Your task to perform on an android device: toggle priority inbox in the gmail app Image 0: 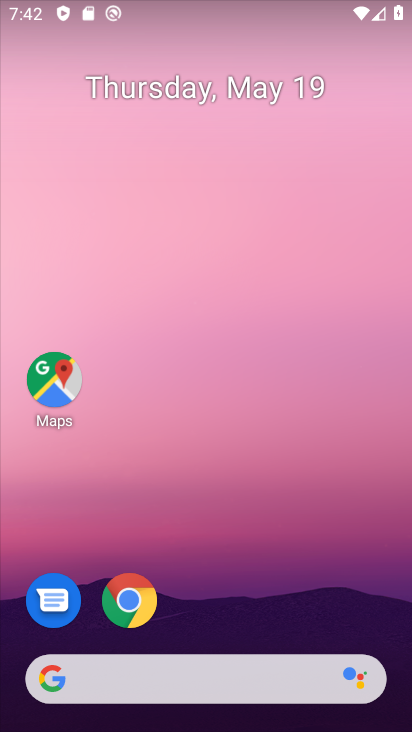
Step 0: drag from (320, 577) to (393, 20)
Your task to perform on an android device: toggle priority inbox in the gmail app Image 1: 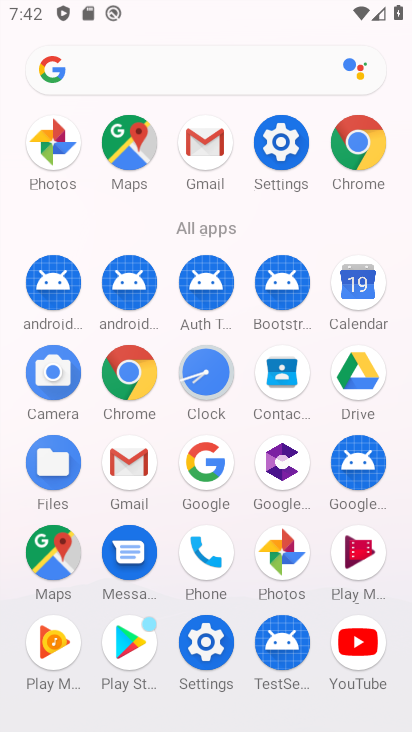
Step 1: click (205, 129)
Your task to perform on an android device: toggle priority inbox in the gmail app Image 2: 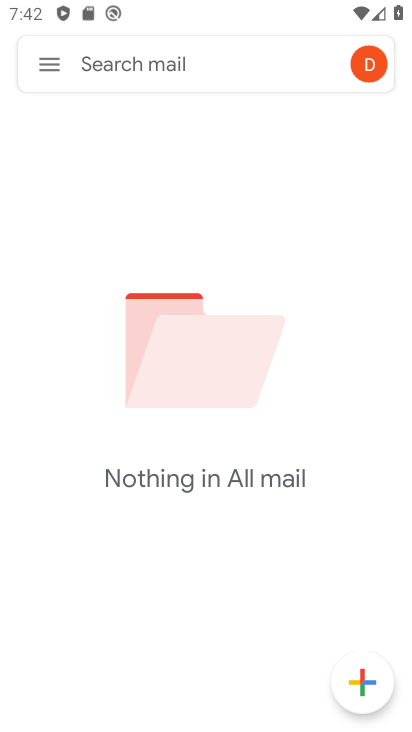
Step 2: click (59, 62)
Your task to perform on an android device: toggle priority inbox in the gmail app Image 3: 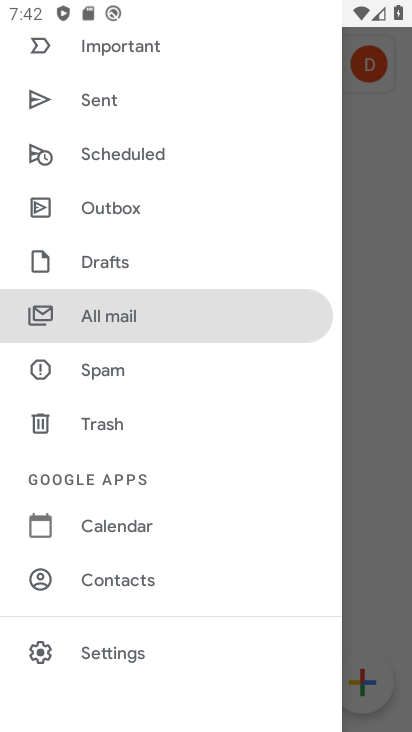
Step 3: click (96, 647)
Your task to perform on an android device: toggle priority inbox in the gmail app Image 4: 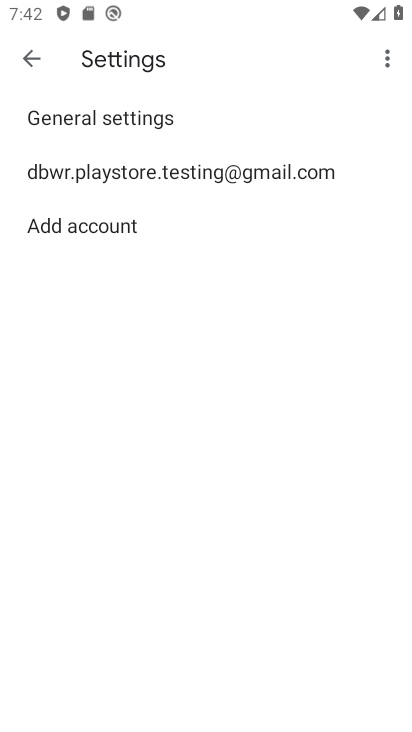
Step 4: click (192, 175)
Your task to perform on an android device: toggle priority inbox in the gmail app Image 5: 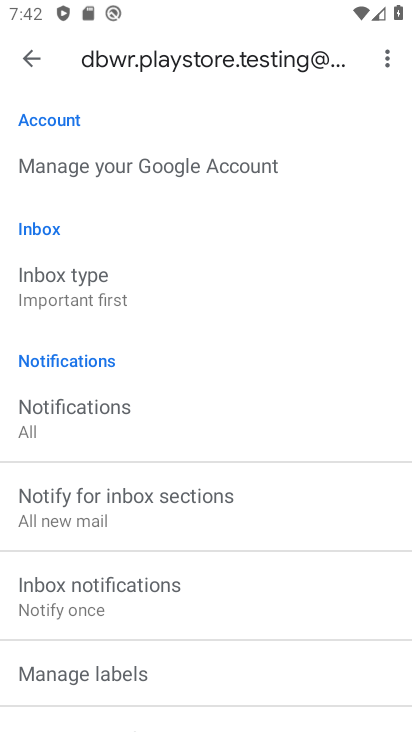
Step 5: click (70, 279)
Your task to perform on an android device: toggle priority inbox in the gmail app Image 6: 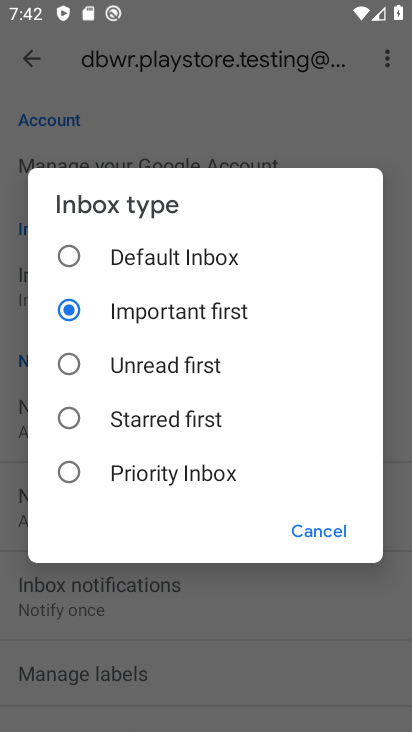
Step 6: click (67, 470)
Your task to perform on an android device: toggle priority inbox in the gmail app Image 7: 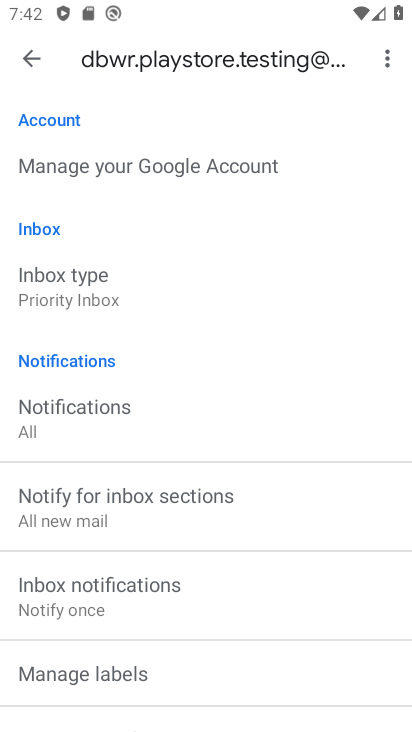
Step 7: task complete